Your task to perform on an android device: Go to eBay Image 0: 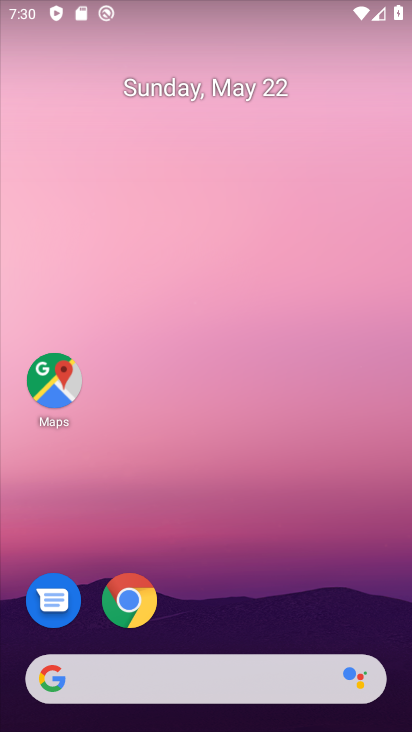
Step 0: drag from (210, 569) to (185, 0)
Your task to perform on an android device: Go to eBay Image 1: 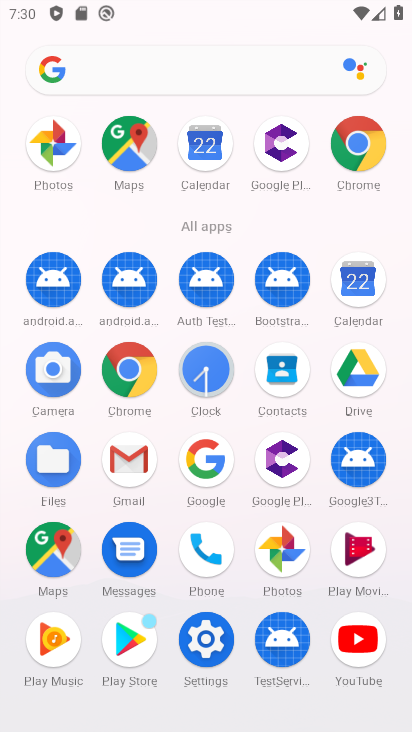
Step 1: click (358, 140)
Your task to perform on an android device: Go to eBay Image 2: 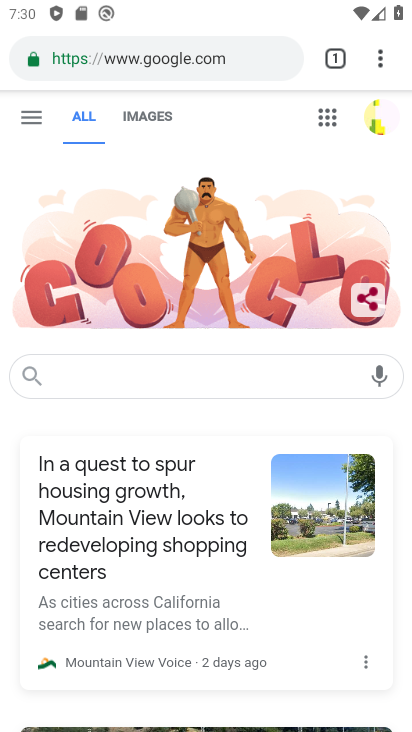
Step 2: press back button
Your task to perform on an android device: Go to eBay Image 3: 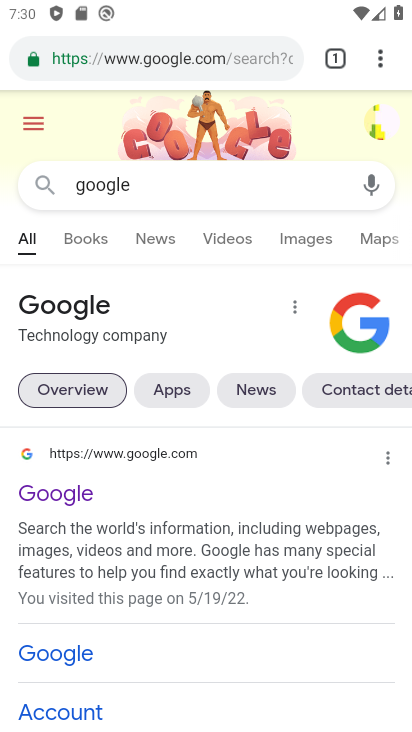
Step 3: press back button
Your task to perform on an android device: Go to eBay Image 4: 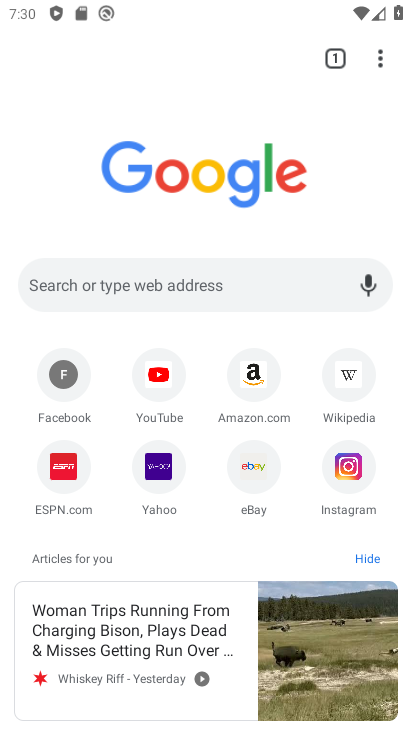
Step 4: click (259, 473)
Your task to perform on an android device: Go to eBay Image 5: 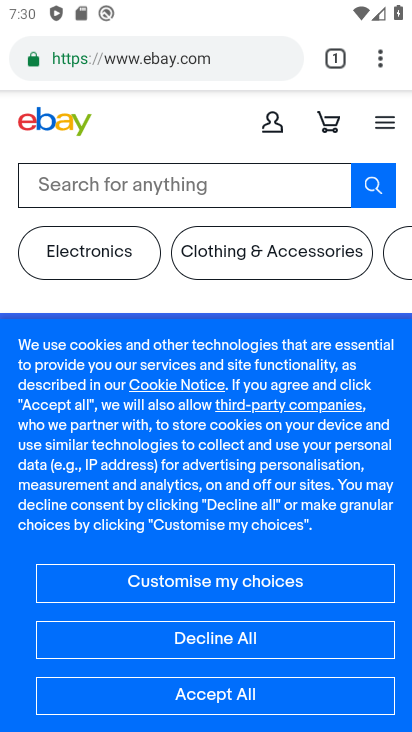
Step 5: task complete